Your task to perform on an android device: manage bookmarks in the chrome app Image 0: 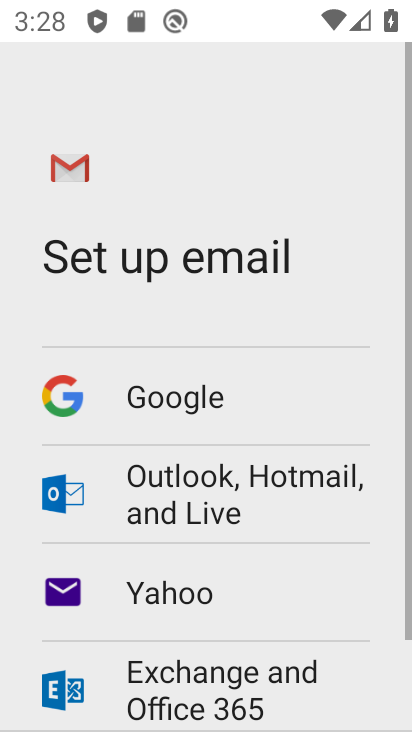
Step 0: press home button
Your task to perform on an android device: manage bookmarks in the chrome app Image 1: 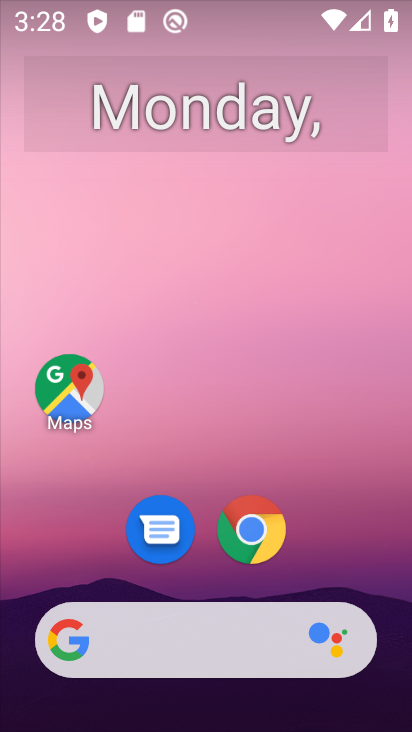
Step 1: click (256, 513)
Your task to perform on an android device: manage bookmarks in the chrome app Image 2: 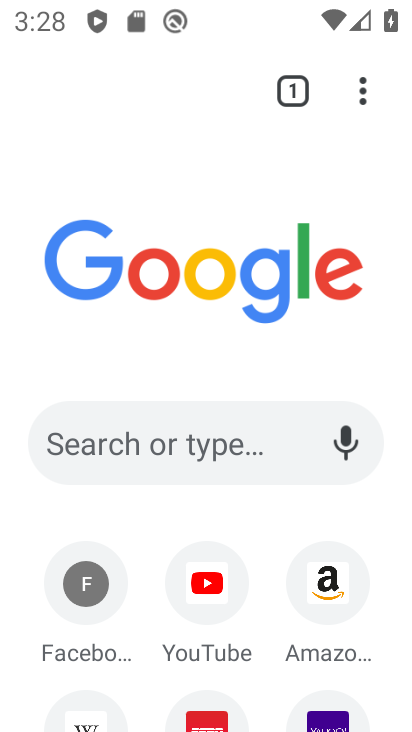
Step 2: click (366, 99)
Your task to perform on an android device: manage bookmarks in the chrome app Image 3: 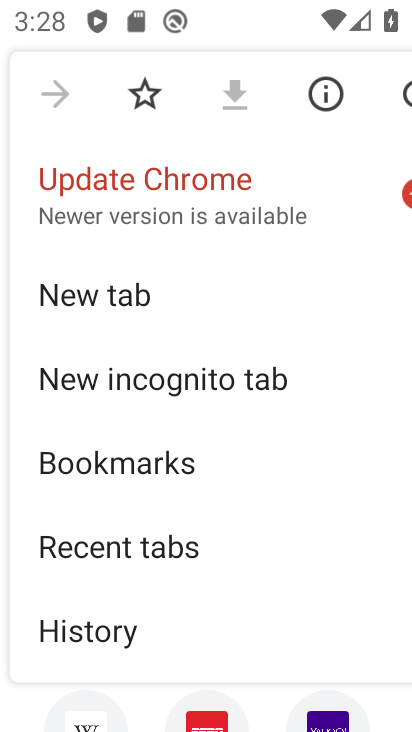
Step 3: click (116, 459)
Your task to perform on an android device: manage bookmarks in the chrome app Image 4: 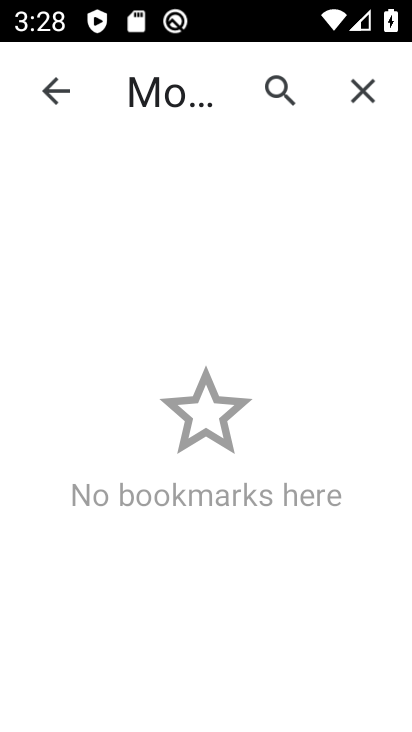
Step 4: task complete